Your task to perform on an android device: change the clock display to analog Image 0: 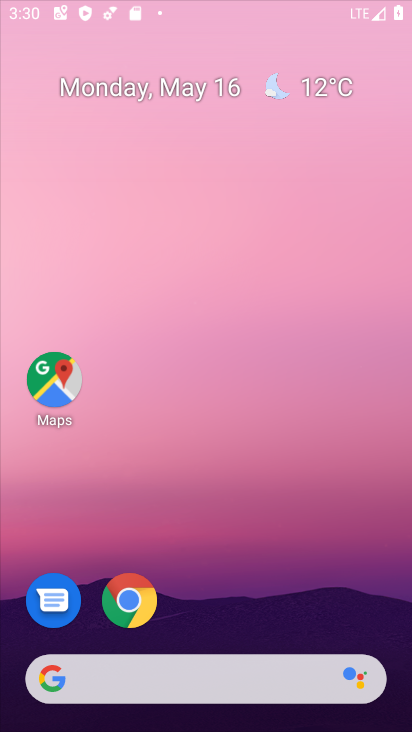
Step 0: drag from (261, 567) to (314, 25)
Your task to perform on an android device: change the clock display to analog Image 1: 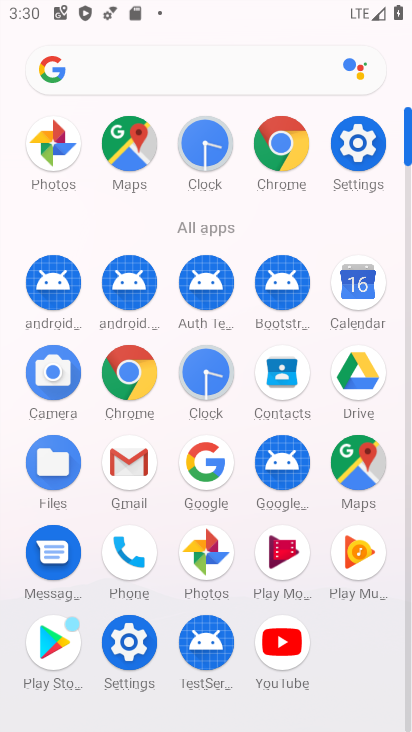
Step 1: click (363, 164)
Your task to perform on an android device: change the clock display to analog Image 2: 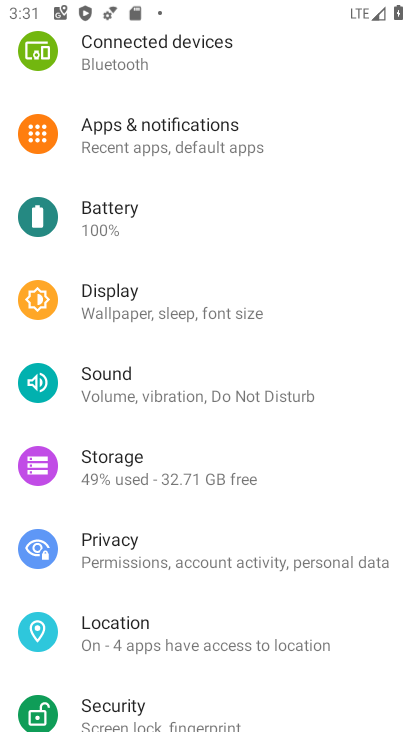
Step 2: press home button
Your task to perform on an android device: change the clock display to analog Image 3: 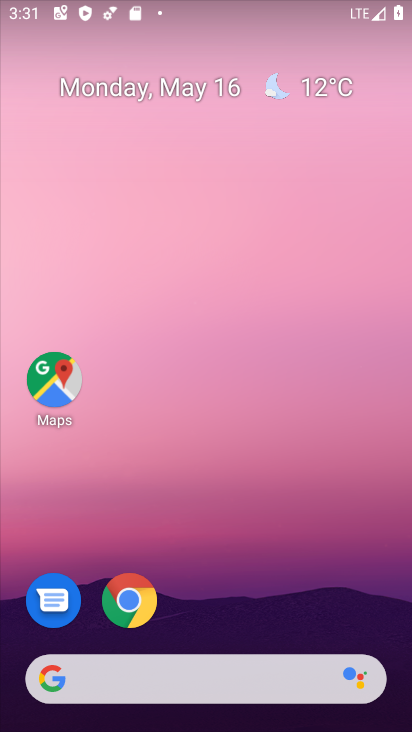
Step 3: drag from (262, 628) to (311, 53)
Your task to perform on an android device: change the clock display to analog Image 4: 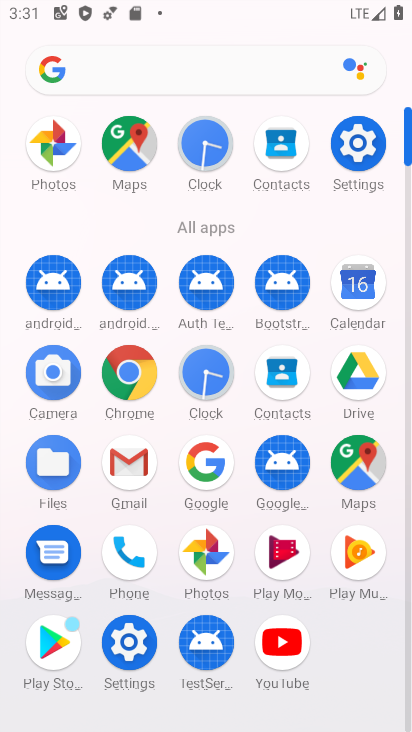
Step 4: click (205, 134)
Your task to perform on an android device: change the clock display to analog Image 5: 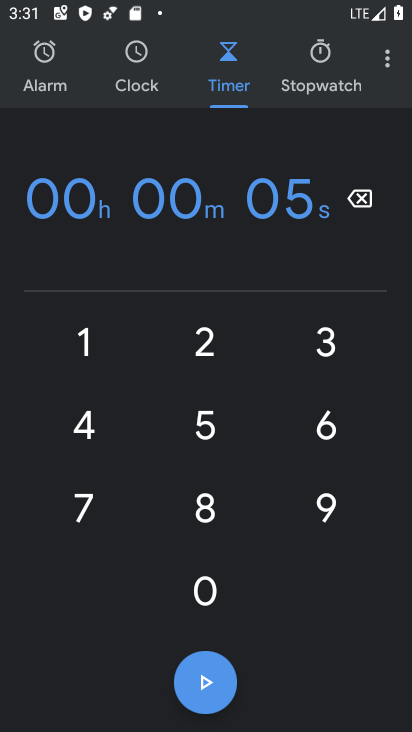
Step 5: click (387, 62)
Your task to perform on an android device: change the clock display to analog Image 6: 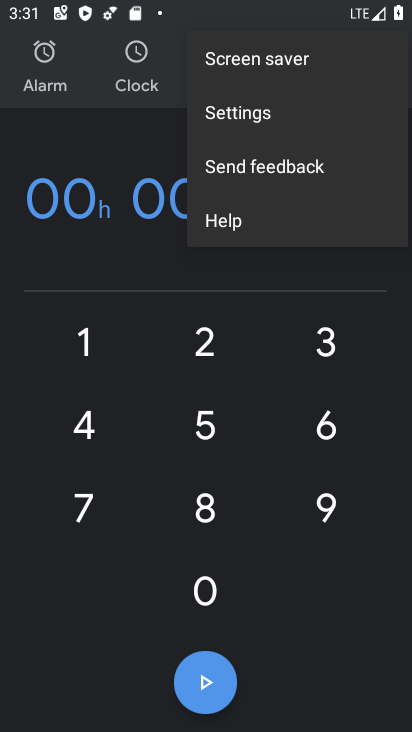
Step 6: click (268, 127)
Your task to perform on an android device: change the clock display to analog Image 7: 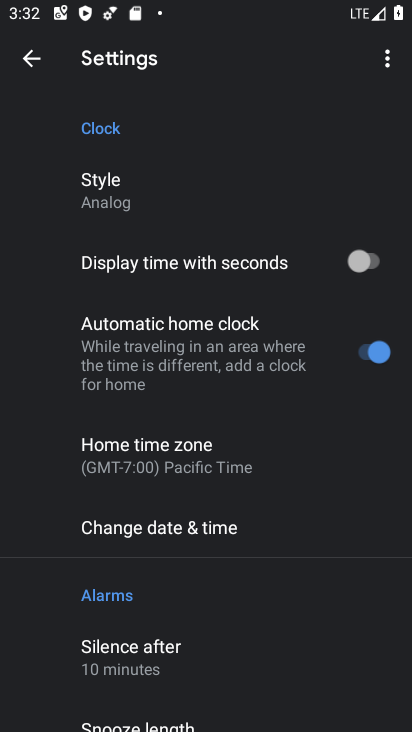
Step 7: task complete